Your task to perform on an android device: Open wifi settings Image 0: 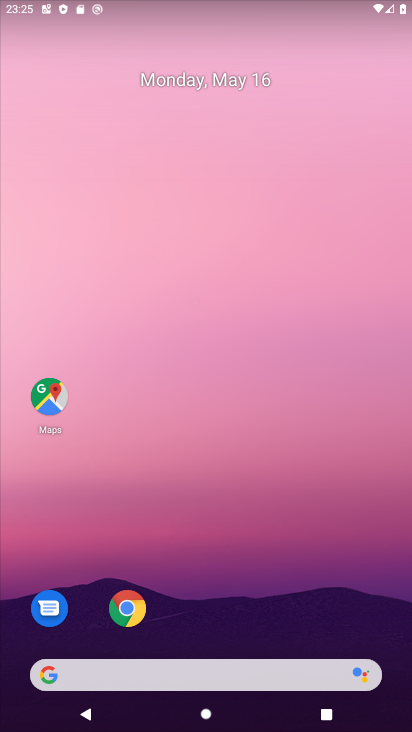
Step 0: press home button
Your task to perform on an android device: Open wifi settings Image 1: 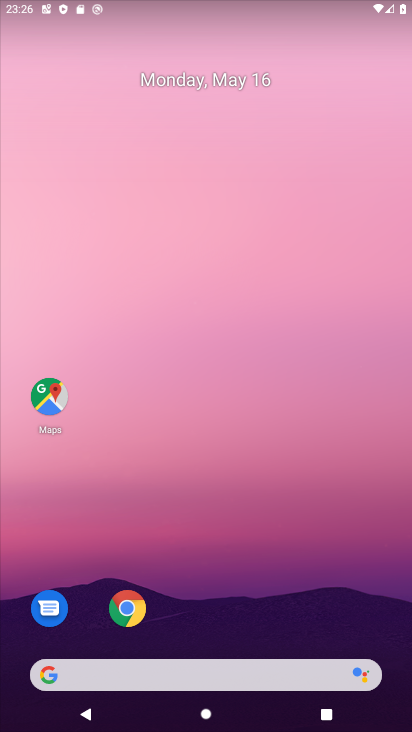
Step 1: drag from (166, 667) to (232, 232)
Your task to perform on an android device: Open wifi settings Image 2: 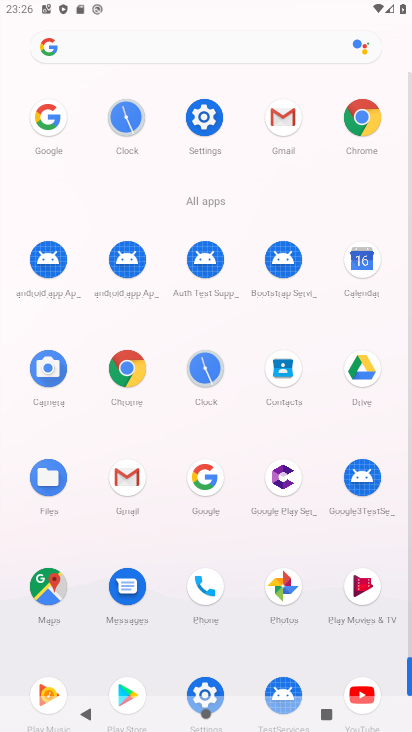
Step 2: click (202, 124)
Your task to perform on an android device: Open wifi settings Image 3: 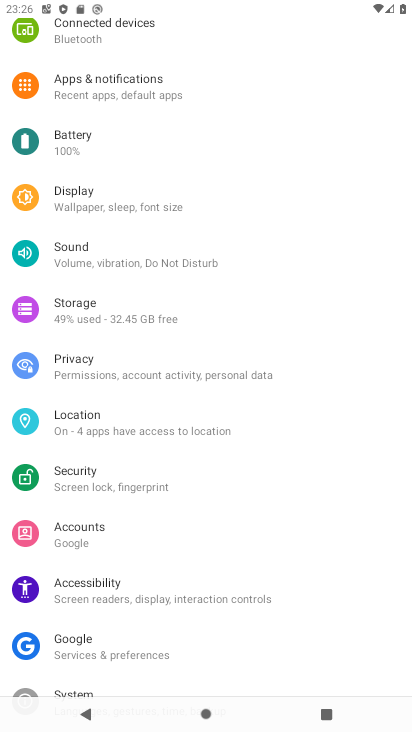
Step 3: drag from (299, 96) to (207, 584)
Your task to perform on an android device: Open wifi settings Image 4: 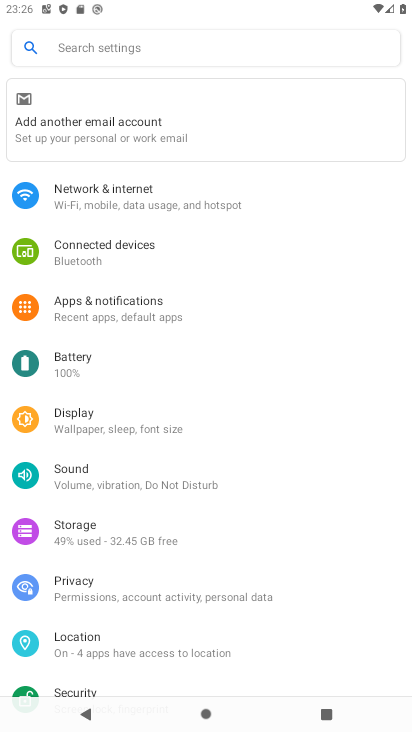
Step 4: click (156, 201)
Your task to perform on an android device: Open wifi settings Image 5: 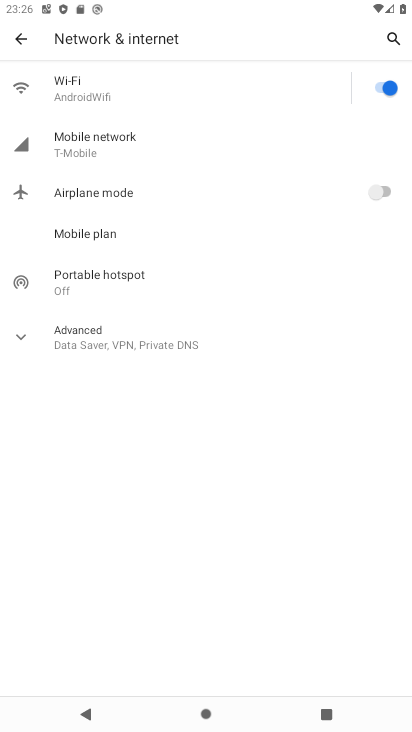
Step 5: click (58, 96)
Your task to perform on an android device: Open wifi settings Image 6: 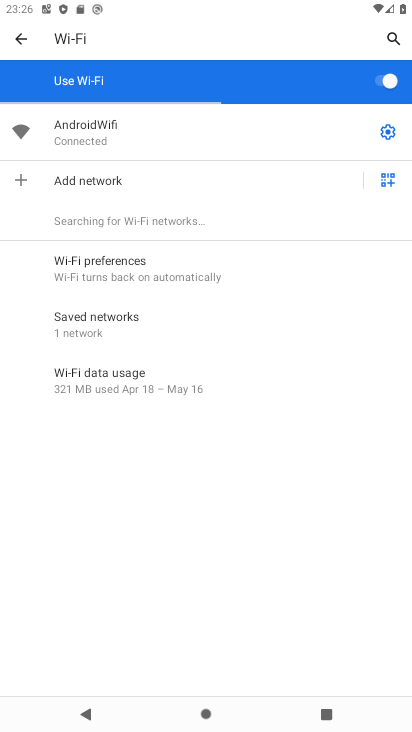
Step 6: task complete